Your task to perform on an android device: uninstall "Clock" Image 0: 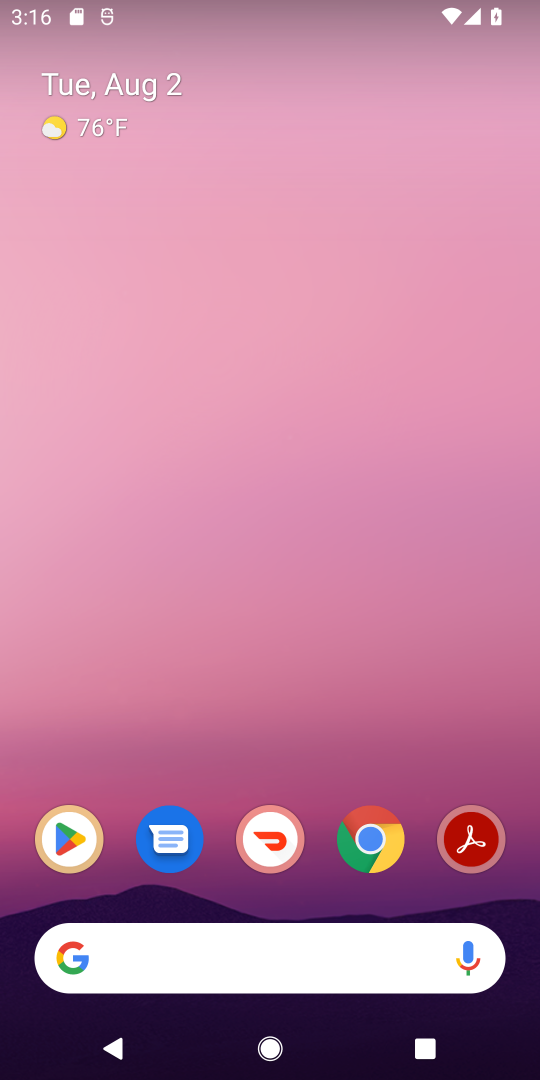
Step 0: drag from (219, 903) to (328, 7)
Your task to perform on an android device: uninstall "Clock" Image 1: 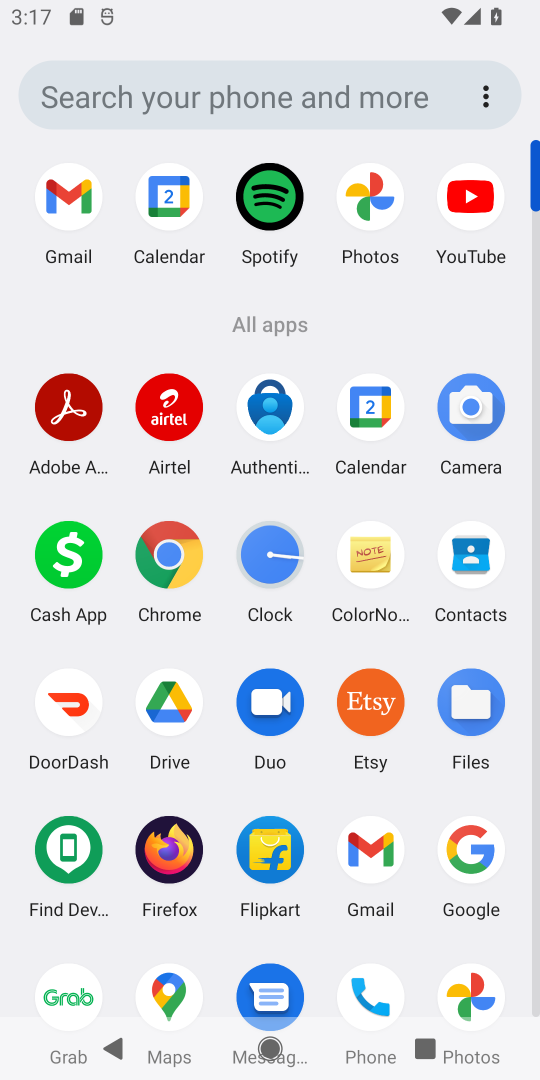
Step 1: click (277, 551)
Your task to perform on an android device: uninstall "Clock" Image 2: 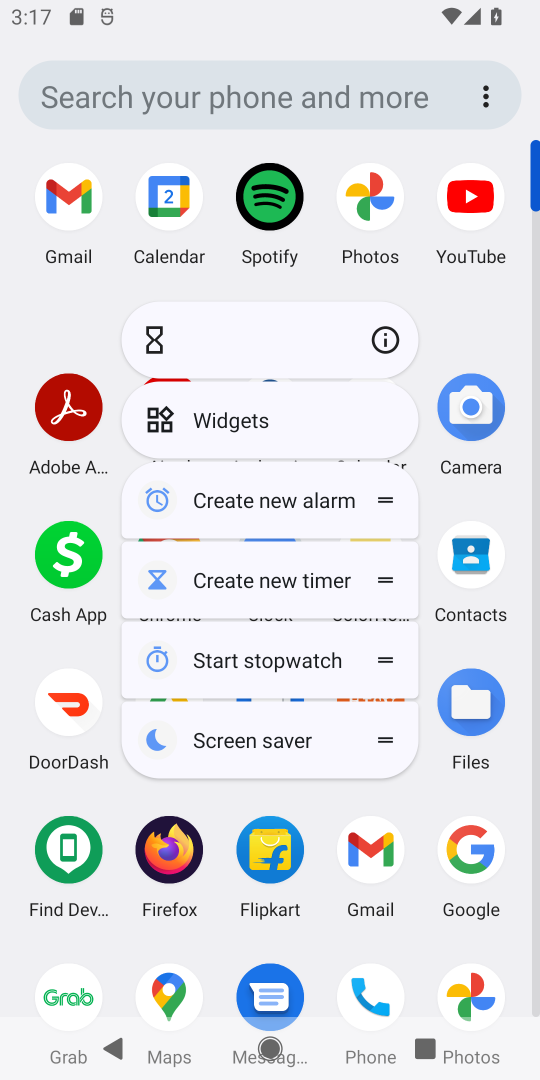
Step 2: task complete